Your task to perform on an android device: Go to Maps Image 0: 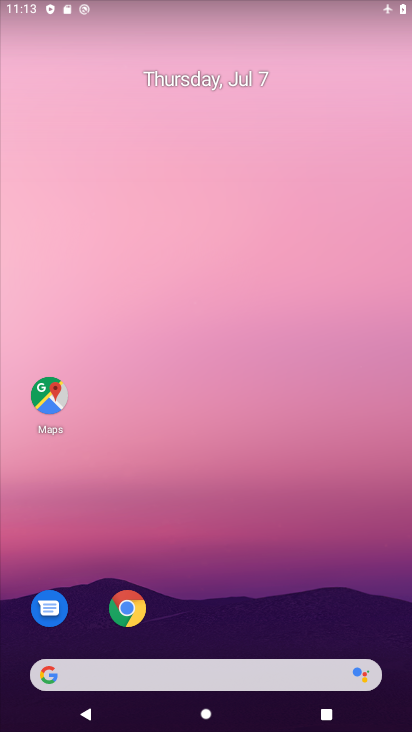
Step 0: drag from (255, 635) to (301, 8)
Your task to perform on an android device: Go to Maps Image 1: 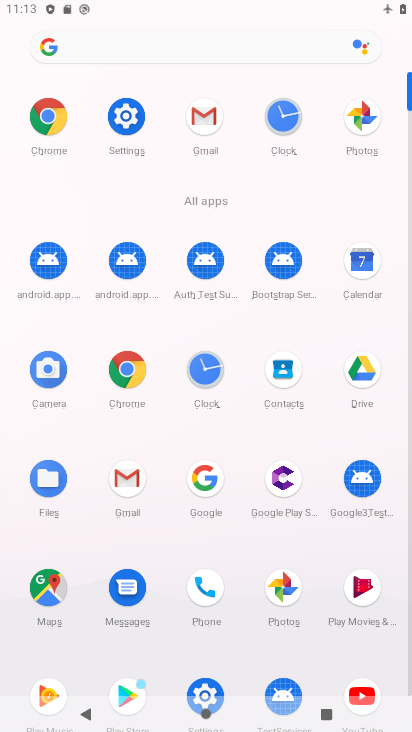
Step 1: click (41, 596)
Your task to perform on an android device: Go to Maps Image 2: 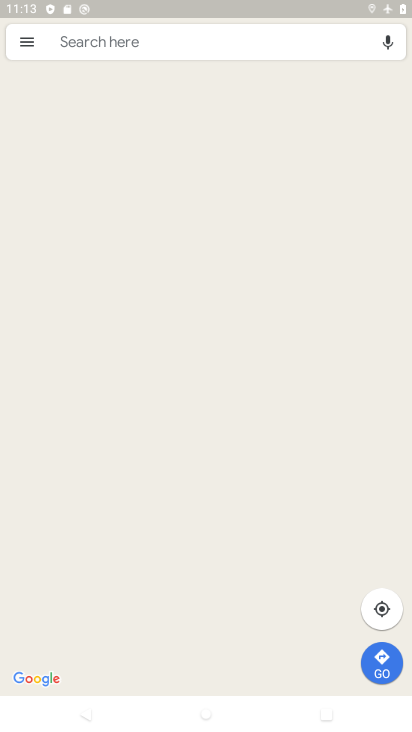
Step 2: task complete